Your task to perform on an android device: open a bookmark in the chrome app Image 0: 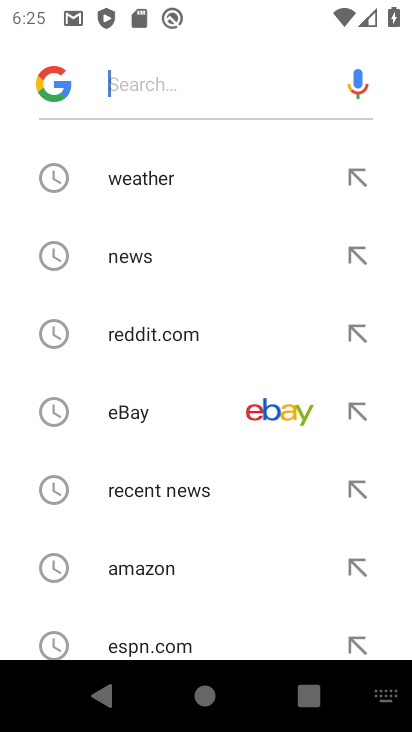
Step 0: press home button
Your task to perform on an android device: open a bookmark in the chrome app Image 1: 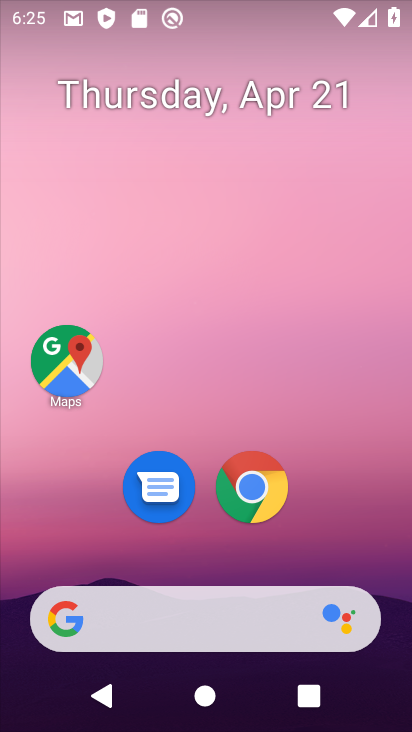
Step 1: click (269, 474)
Your task to perform on an android device: open a bookmark in the chrome app Image 2: 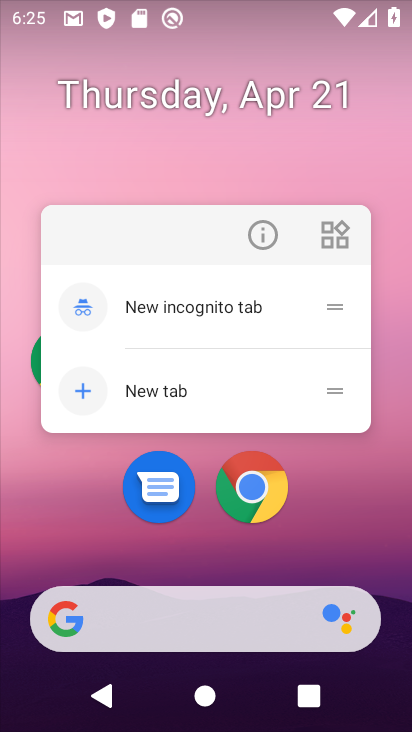
Step 2: click (245, 500)
Your task to perform on an android device: open a bookmark in the chrome app Image 3: 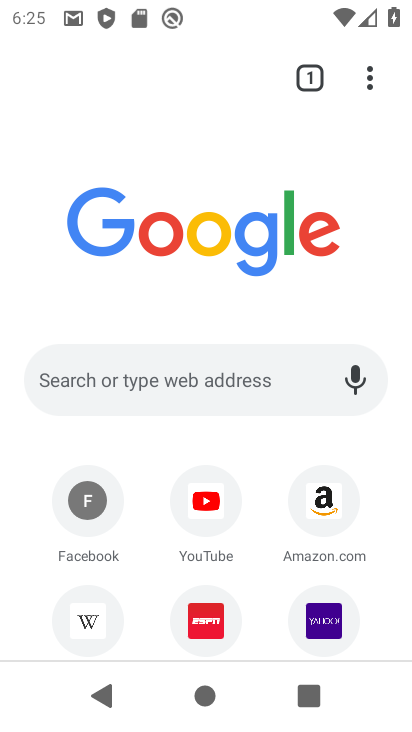
Step 3: task complete